Your task to perform on an android device: Open display settings Image 0: 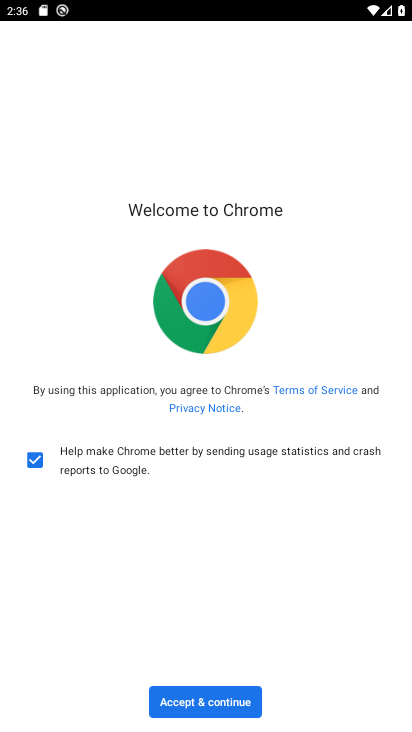
Step 0: press home button
Your task to perform on an android device: Open display settings Image 1: 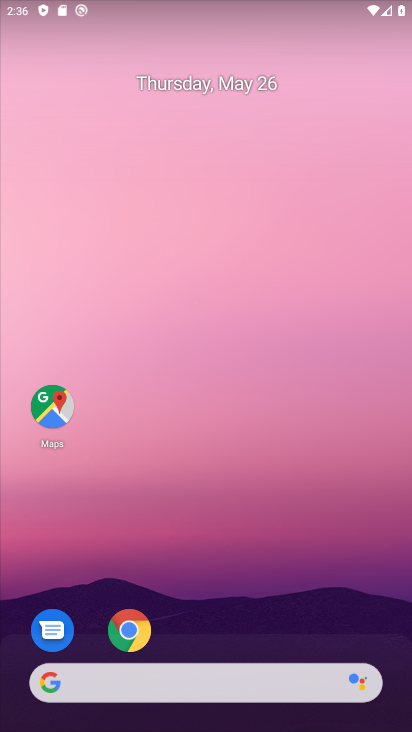
Step 1: drag from (199, 662) to (303, 122)
Your task to perform on an android device: Open display settings Image 2: 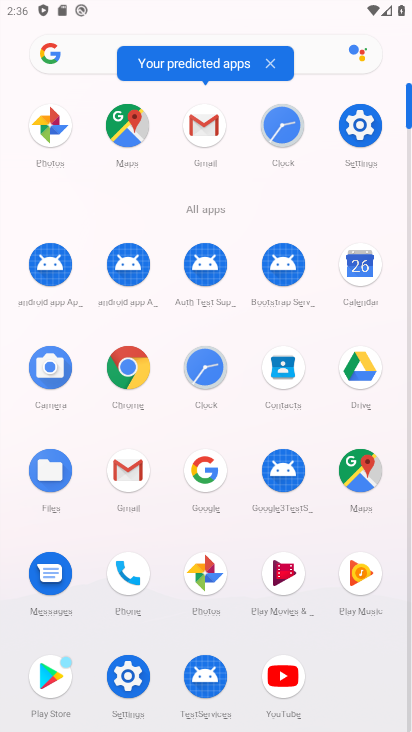
Step 2: click (138, 679)
Your task to perform on an android device: Open display settings Image 3: 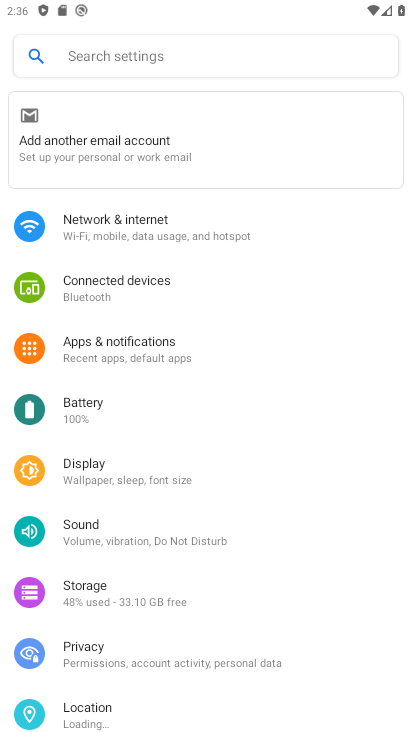
Step 3: click (139, 471)
Your task to perform on an android device: Open display settings Image 4: 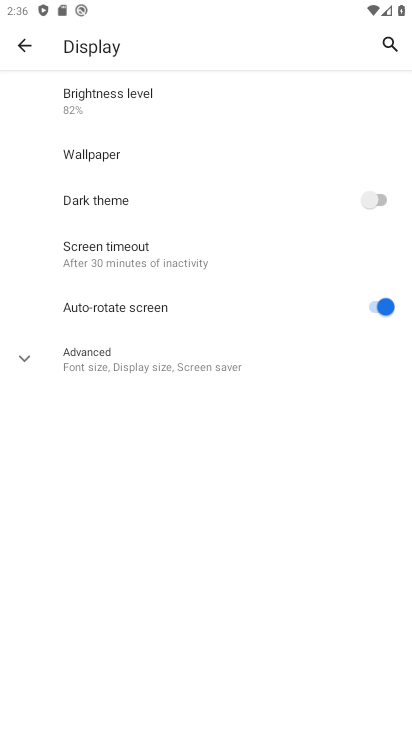
Step 4: task complete